Your task to perform on an android device: open app "Google Drive" (install if not already installed) Image 0: 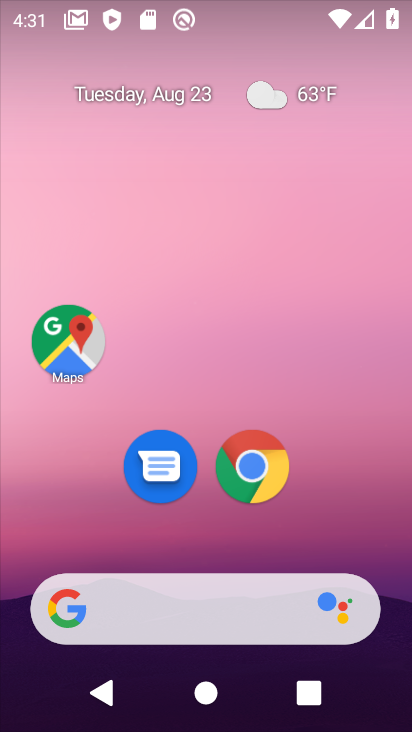
Step 0: drag from (206, 534) to (196, 0)
Your task to perform on an android device: open app "Google Drive" (install if not already installed) Image 1: 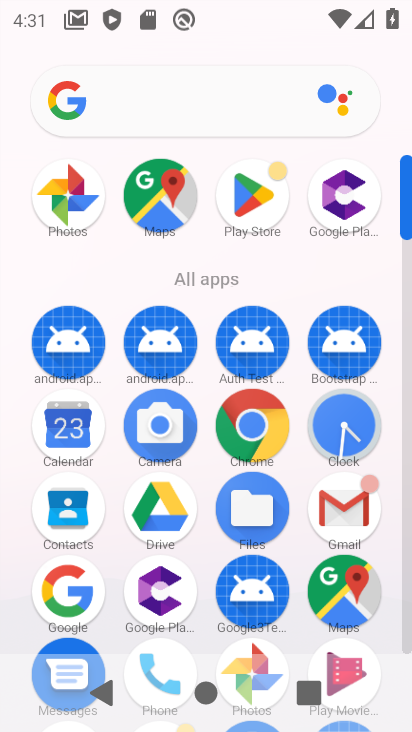
Step 1: click (258, 210)
Your task to perform on an android device: open app "Google Drive" (install if not already installed) Image 2: 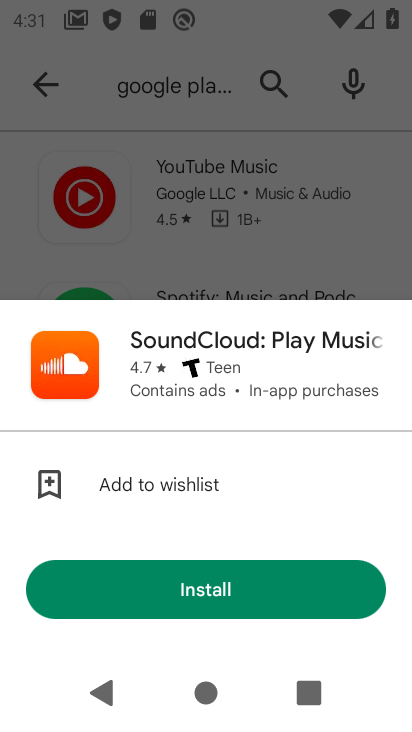
Step 2: click (53, 77)
Your task to perform on an android device: open app "Google Drive" (install if not already installed) Image 3: 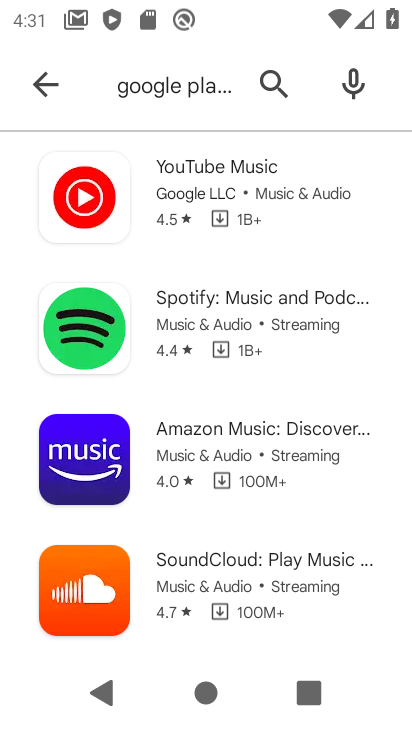
Step 3: click (169, 95)
Your task to perform on an android device: open app "Google Drive" (install if not already installed) Image 4: 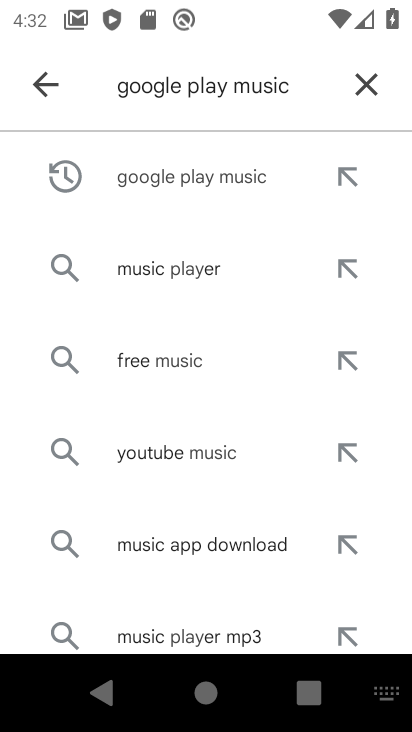
Step 4: click (363, 83)
Your task to perform on an android device: open app "Google Drive" (install if not already installed) Image 5: 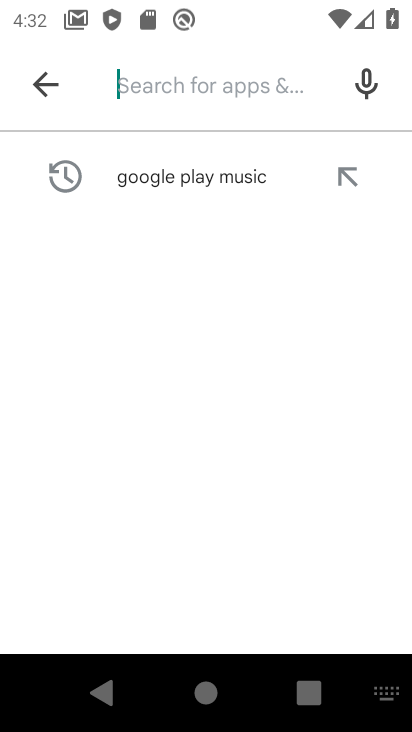
Step 5: type "google drive"
Your task to perform on an android device: open app "Google Drive" (install if not already installed) Image 6: 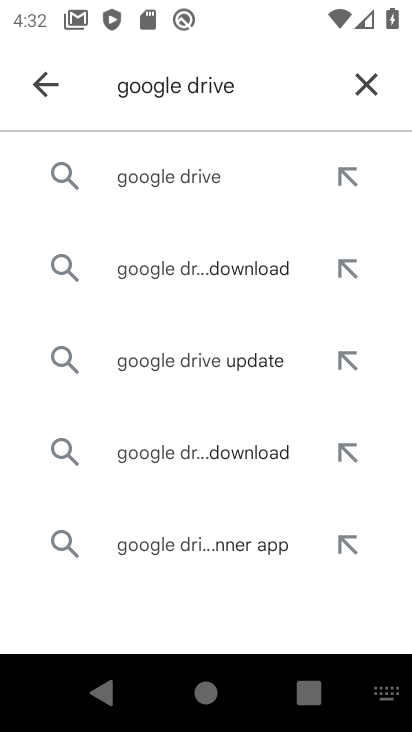
Step 6: click (176, 188)
Your task to perform on an android device: open app "Google Drive" (install if not already installed) Image 7: 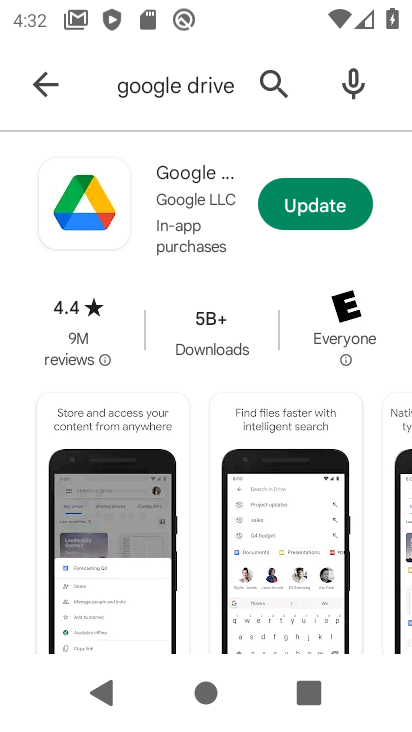
Step 7: click (338, 197)
Your task to perform on an android device: open app "Google Drive" (install if not already installed) Image 8: 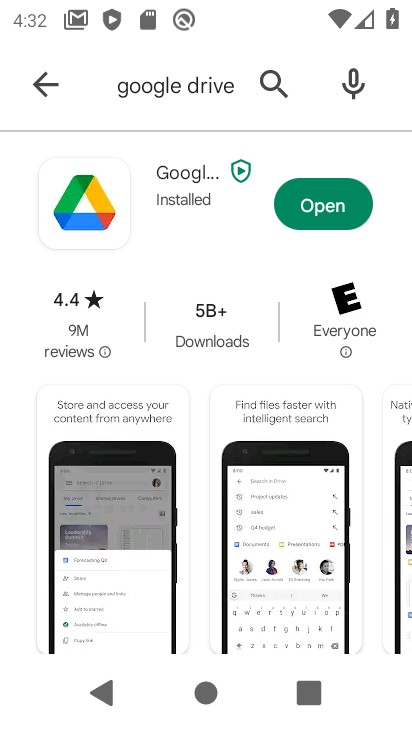
Step 8: click (329, 201)
Your task to perform on an android device: open app "Google Drive" (install if not already installed) Image 9: 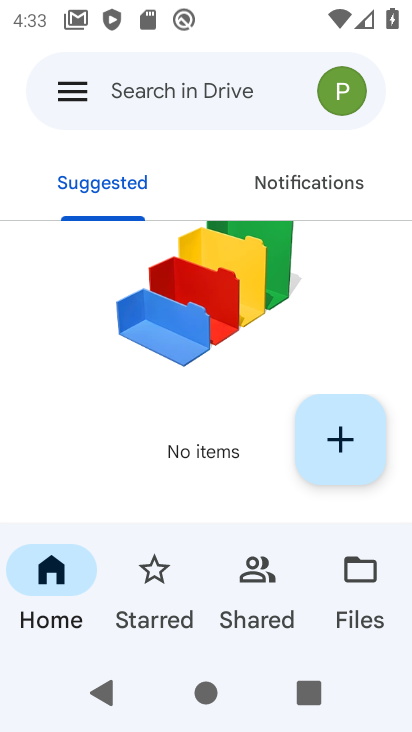
Step 9: task complete